Your task to perform on an android device: delete location history Image 0: 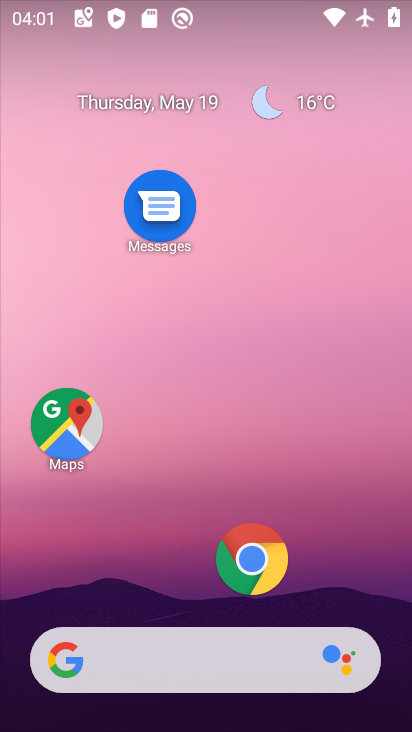
Step 0: drag from (180, 592) to (216, 249)
Your task to perform on an android device: delete location history Image 1: 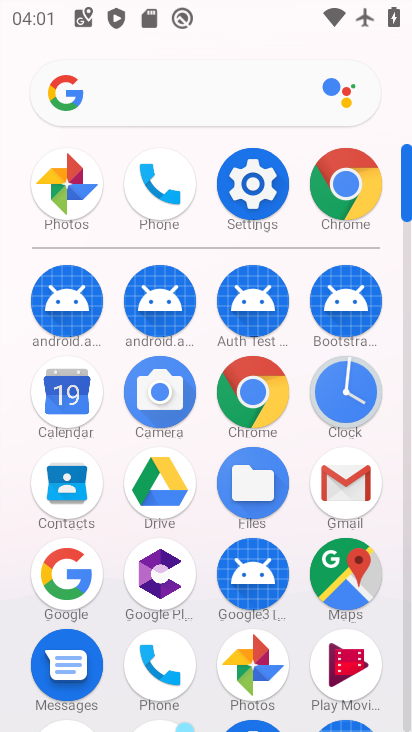
Step 1: click (349, 580)
Your task to perform on an android device: delete location history Image 2: 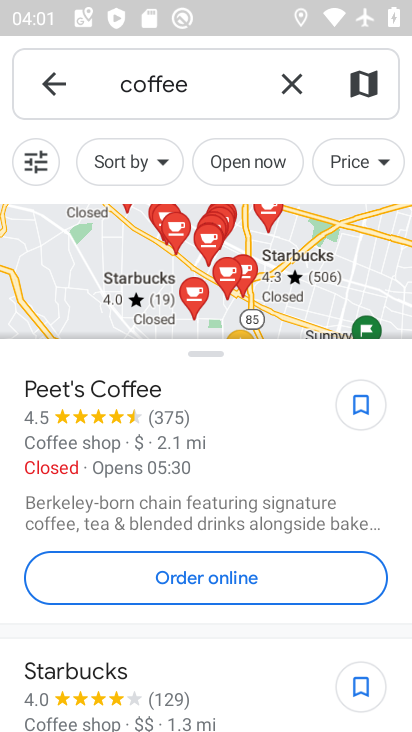
Step 2: click (56, 83)
Your task to perform on an android device: delete location history Image 3: 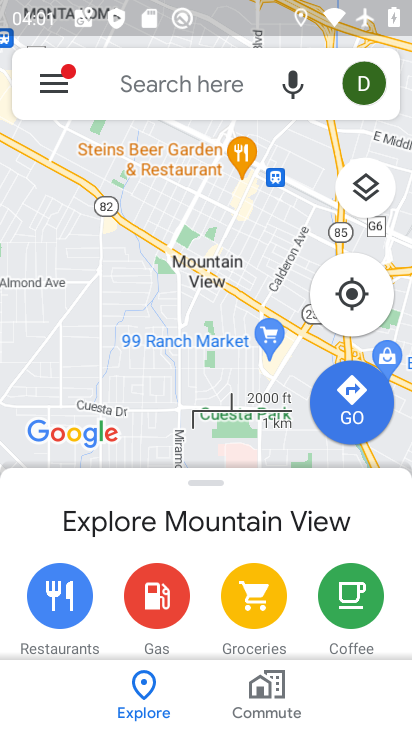
Step 3: click (55, 88)
Your task to perform on an android device: delete location history Image 4: 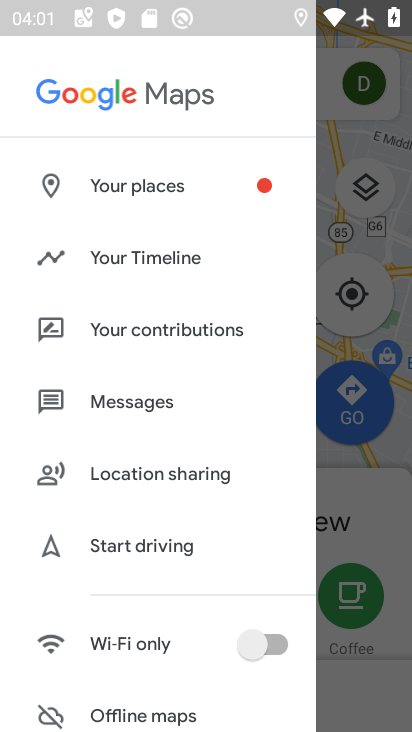
Step 4: click (139, 250)
Your task to perform on an android device: delete location history Image 5: 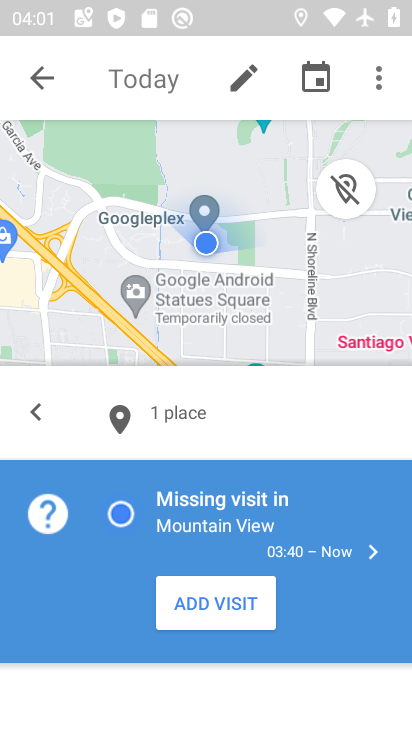
Step 5: click (378, 79)
Your task to perform on an android device: delete location history Image 6: 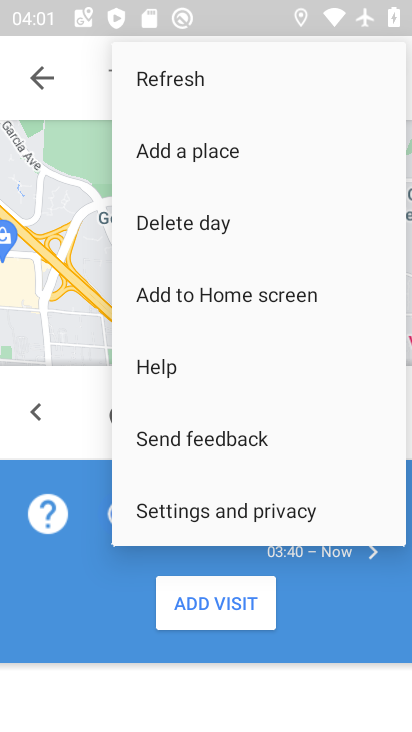
Step 6: click (250, 500)
Your task to perform on an android device: delete location history Image 7: 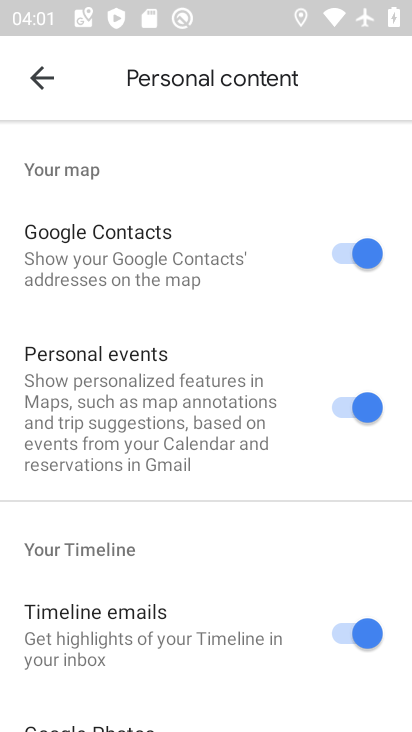
Step 7: drag from (200, 589) to (241, 225)
Your task to perform on an android device: delete location history Image 8: 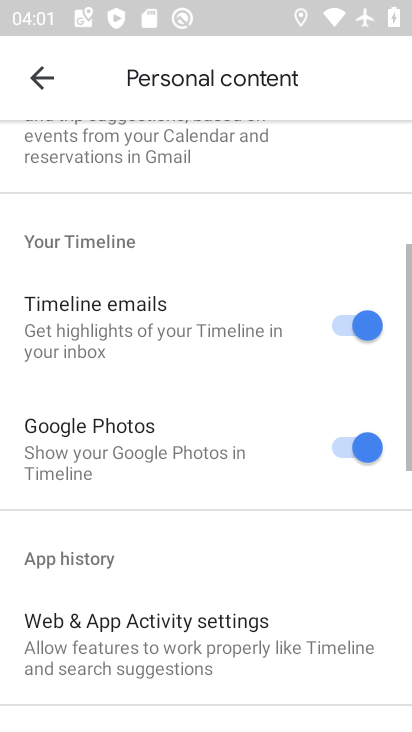
Step 8: drag from (241, 571) to (242, 215)
Your task to perform on an android device: delete location history Image 9: 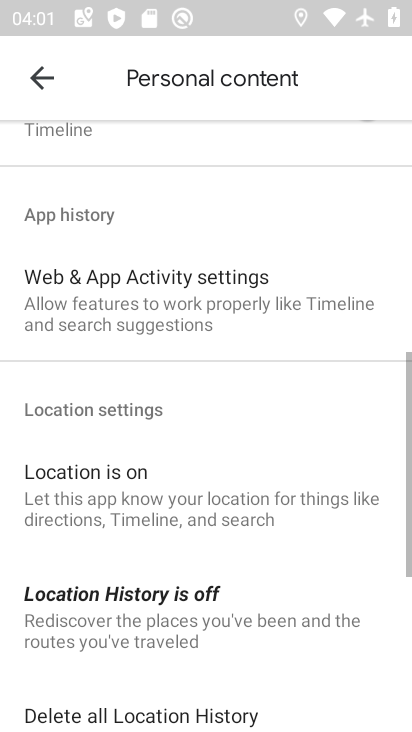
Step 9: drag from (208, 582) to (211, 249)
Your task to perform on an android device: delete location history Image 10: 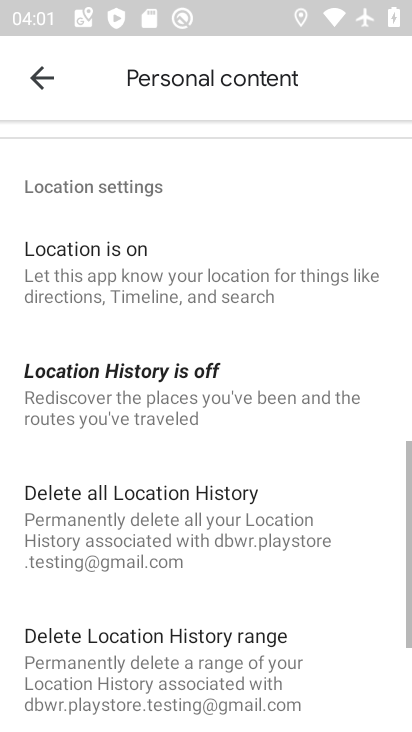
Step 10: drag from (224, 571) to (227, 280)
Your task to perform on an android device: delete location history Image 11: 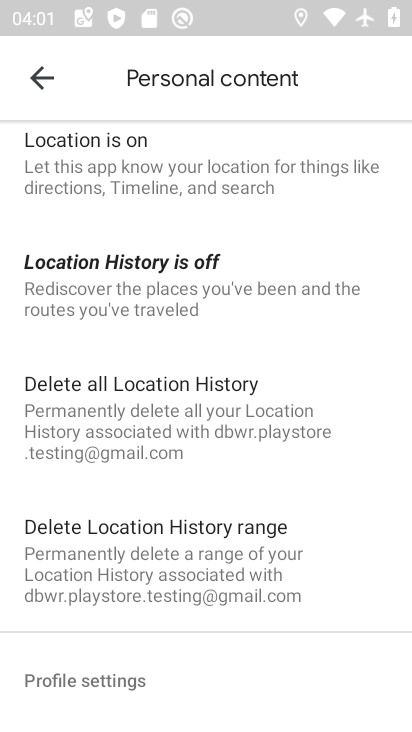
Step 11: click (172, 422)
Your task to perform on an android device: delete location history Image 12: 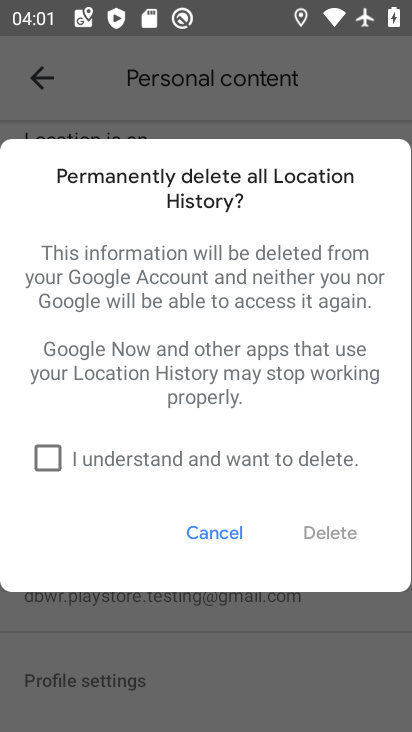
Step 12: click (143, 455)
Your task to perform on an android device: delete location history Image 13: 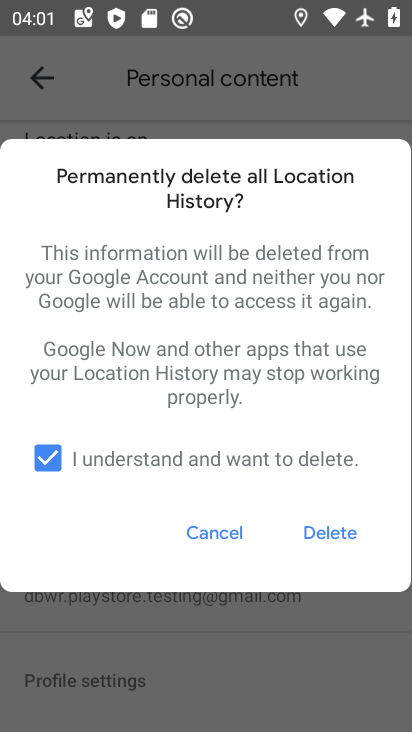
Step 13: click (317, 539)
Your task to perform on an android device: delete location history Image 14: 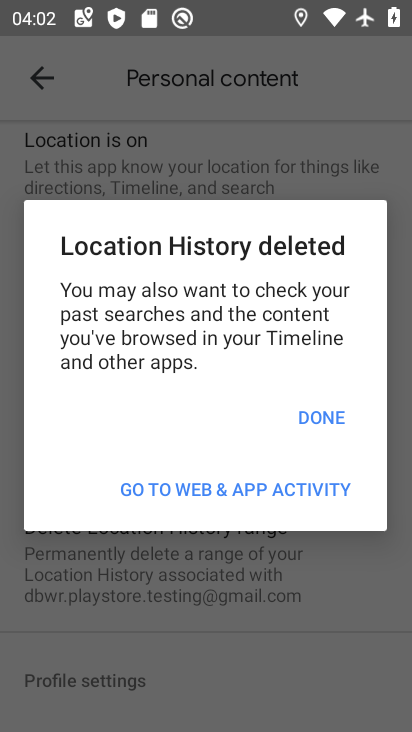
Step 14: task complete